Your task to perform on an android device: change the upload size in google photos Image 0: 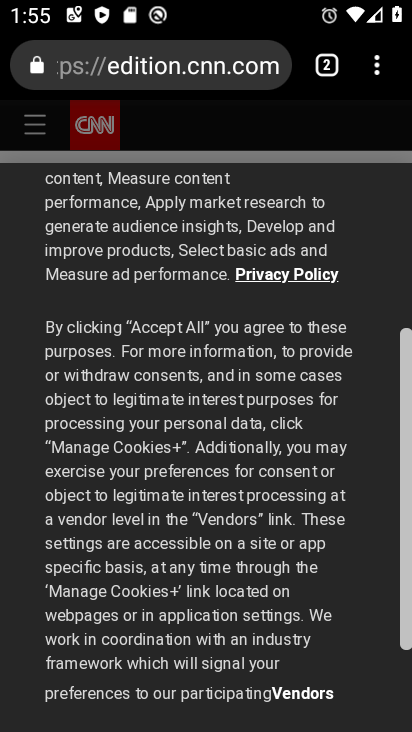
Step 0: drag from (221, 487) to (302, 92)
Your task to perform on an android device: change the upload size in google photos Image 1: 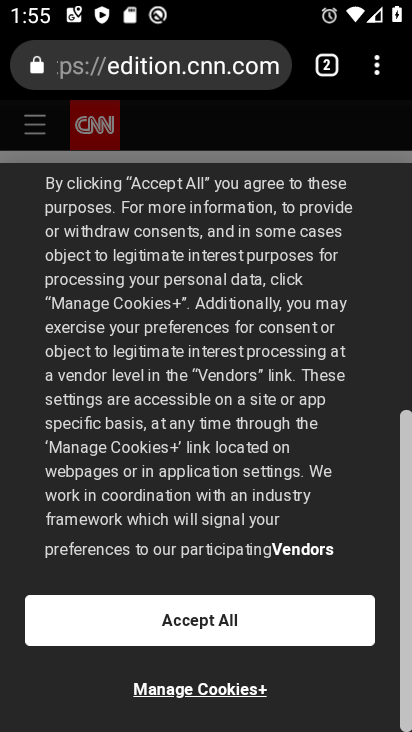
Step 1: drag from (187, 253) to (399, 282)
Your task to perform on an android device: change the upload size in google photos Image 2: 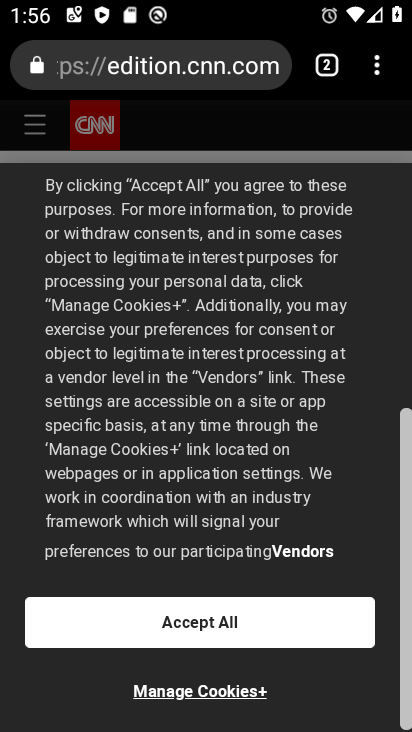
Step 2: click (377, 56)
Your task to perform on an android device: change the upload size in google photos Image 3: 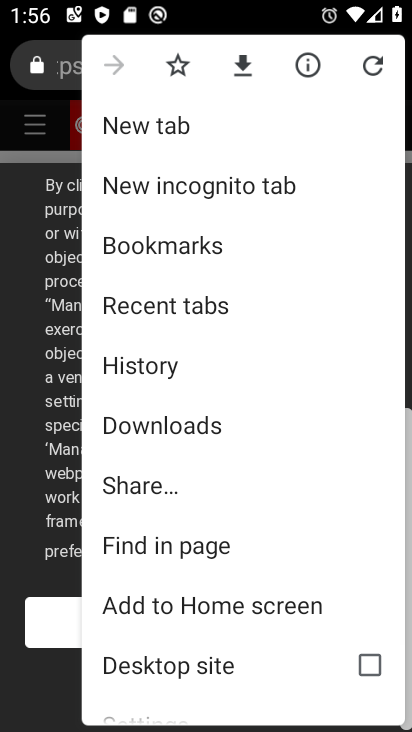
Step 3: press home button
Your task to perform on an android device: change the upload size in google photos Image 4: 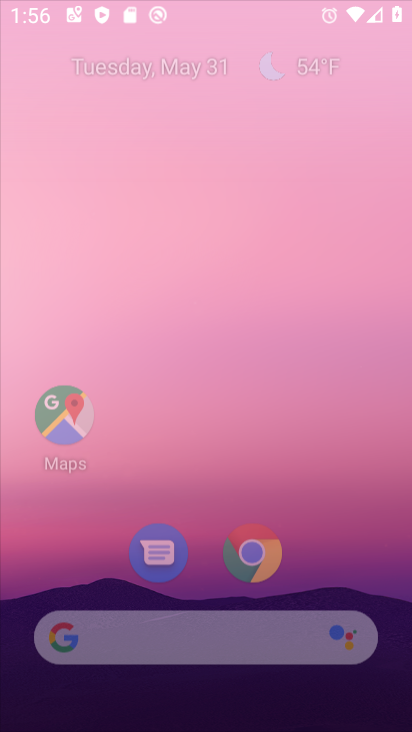
Step 4: drag from (106, 581) to (156, 134)
Your task to perform on an android device: change the upload size in google photos Image 5: 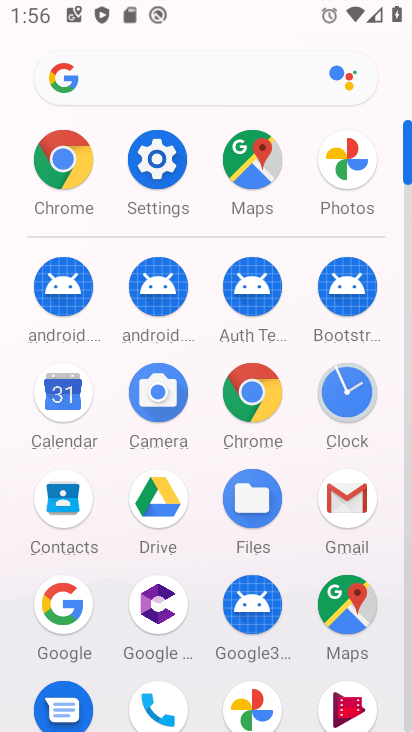
Step 5: click (247, 691)
Your task to perform on an android device: change the upload size in google photos Image 6: 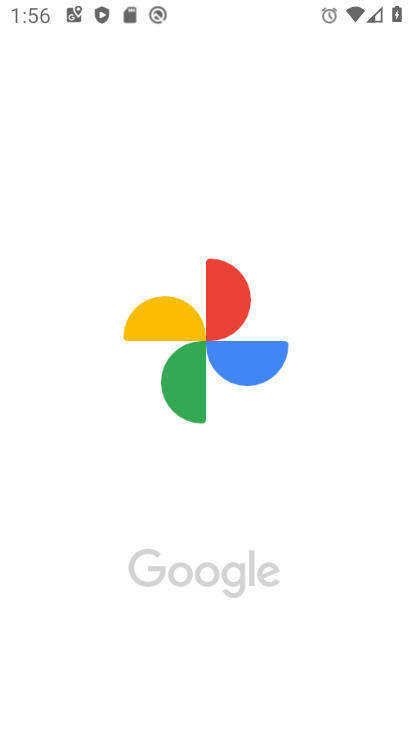
Step 6: drag from (228, 415) to (302, 185)
Your task to perform on an android device: change the upload size in google photos Image 7: 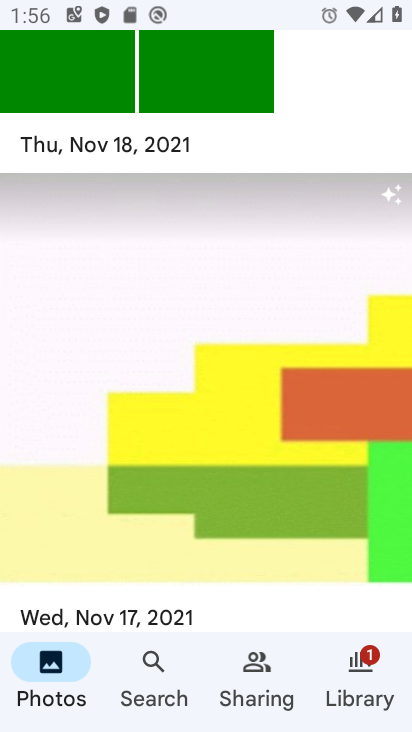
Step 7: click (364, 685)
Your task to perform on an android device: change the upload size in google photos Image 8: 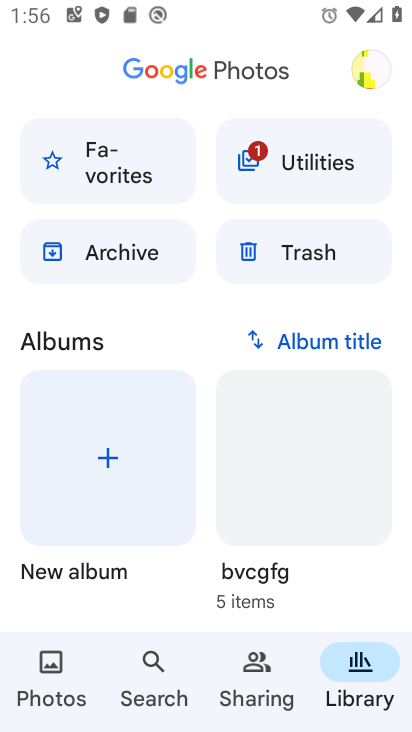
Step 8: click (366, 64)
Your task to perform on an android device: change the upload size in google photos Image 9: 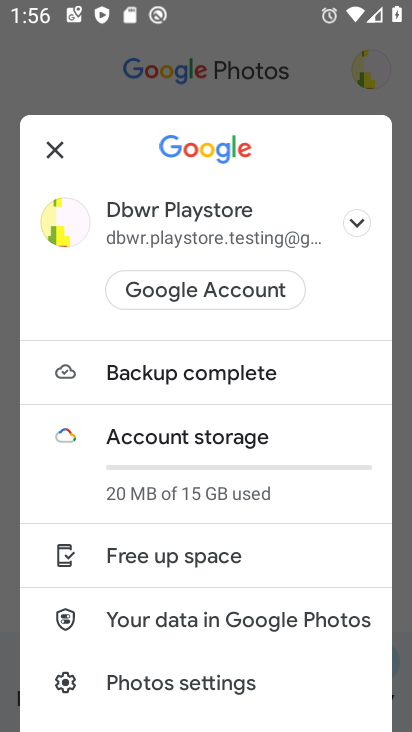
Step 9: click (140, 674)
Your task to perform on an android device: change the upload size in google photos Image 10: 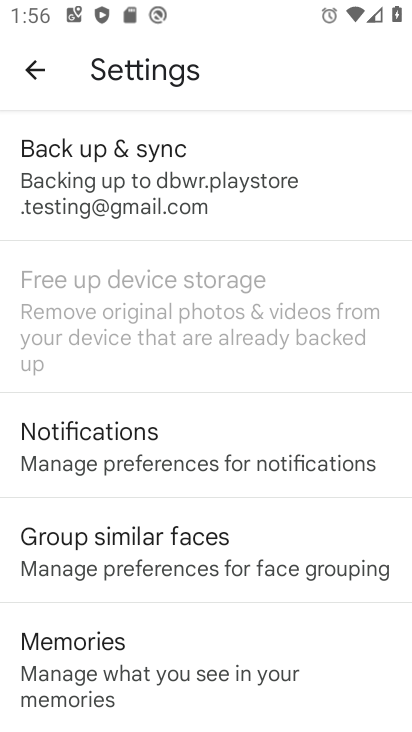
Step 10: click (165, 194)
Your task to perform on an android device: change the upload size in google photos Image 11: 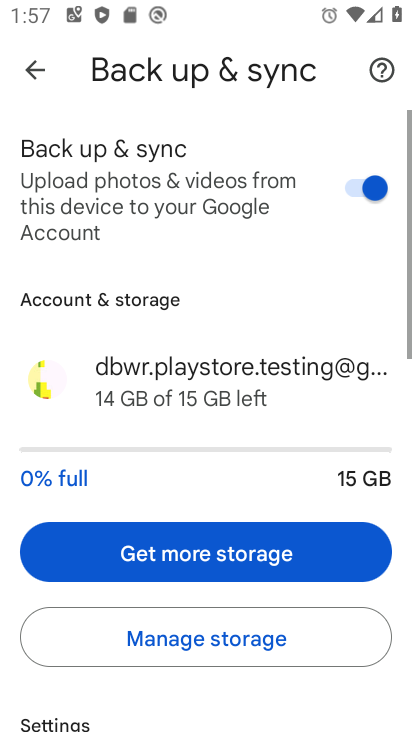
Step 11: drag from (168, 456) to (299, 21)
Your task to perform on an android device: change the upload size in google photos Image 12: 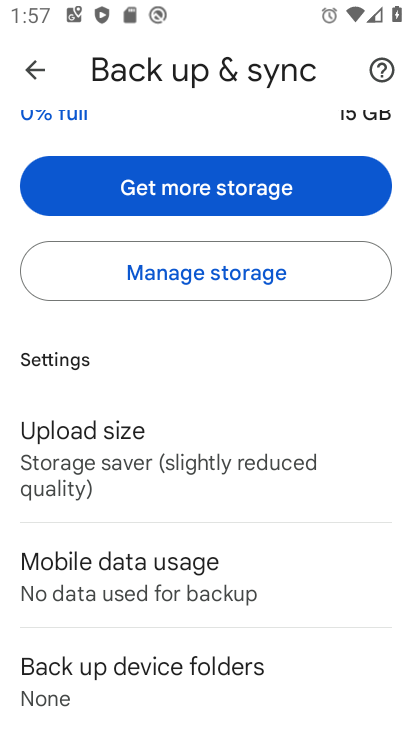
Step 12: click (152, 457)
Your task to perform on an android device: change the upload size in google photos Image 13: 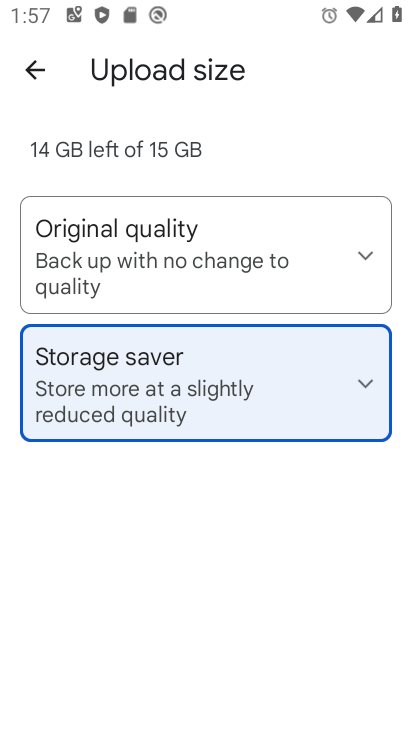
Step 13: click (136, 226)
Your task to perform on an android device: change the upload size in google photos Image 14: 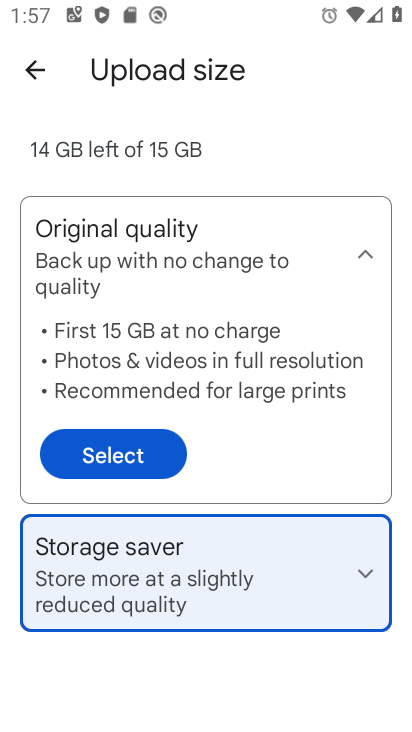
Step 14: click (86, 434)
Your task to perform on an android device: change the upload size in google photos Image 15: 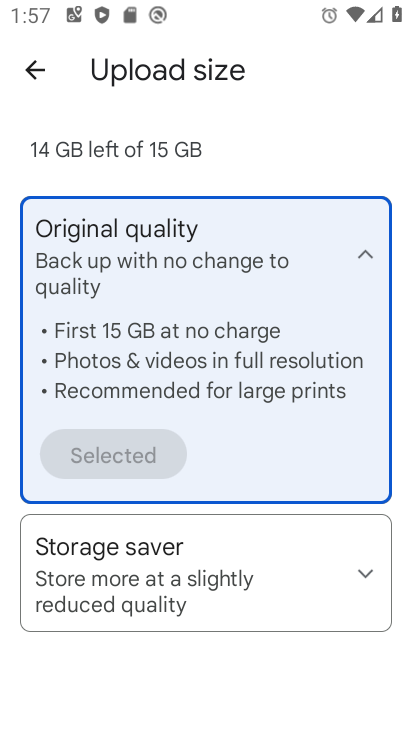
Step 15: task complete